Your task to perform on an android device: turn vacation reply on in the gmail app Image 0: 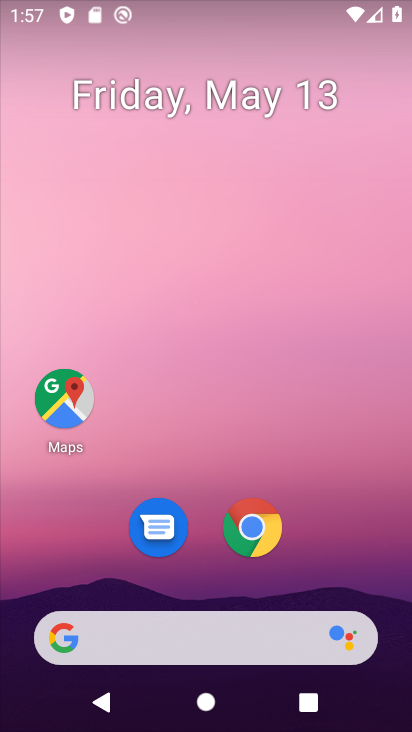
Step 0: drag from (354, 572) to (356, 256)
Your task to perform on an android device: turn vacation reply on in the gmail app Image 1: 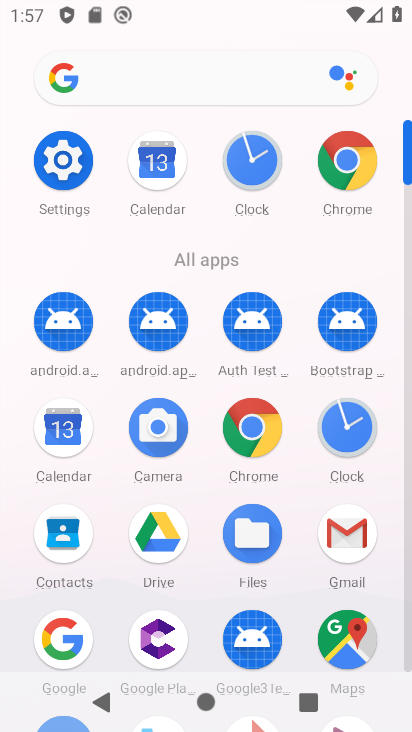
Step 1: click (359, 571)
Your task to perform on an android device: turn vacation reply on in the gmail app Image 2: 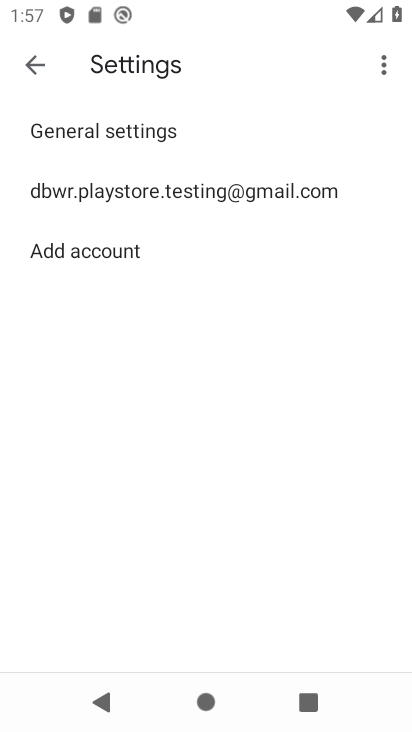
Step 2: click (177, 198)
Your task to perform on an android device: turn vacation reply on in the gmail app Image 3: 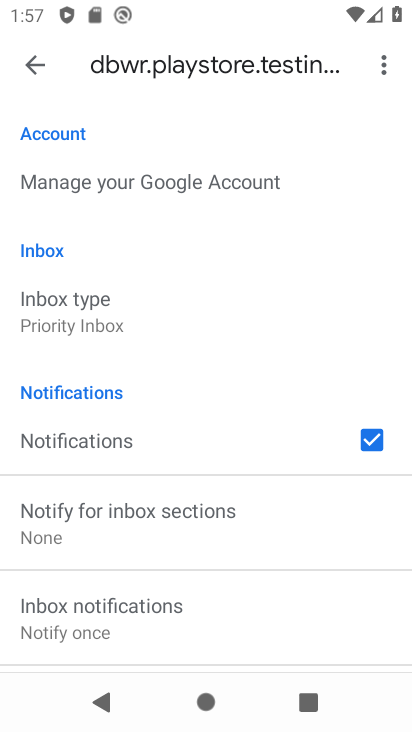
Step 3: drag from (300, 556) to (275, 188)
Your task to perform on an android device: turn vacation reply on in the gmail app Image 4: 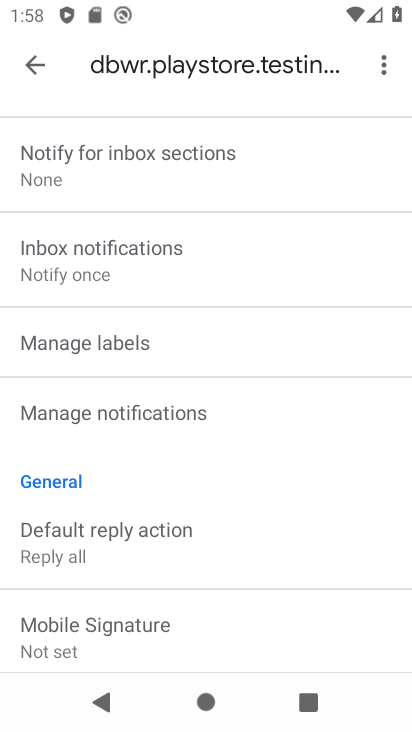
Step 4: drag from (275, 549) to (297, 210)
Your task to perform on an android device: turn vacation reply on in the gmail app Image 5: 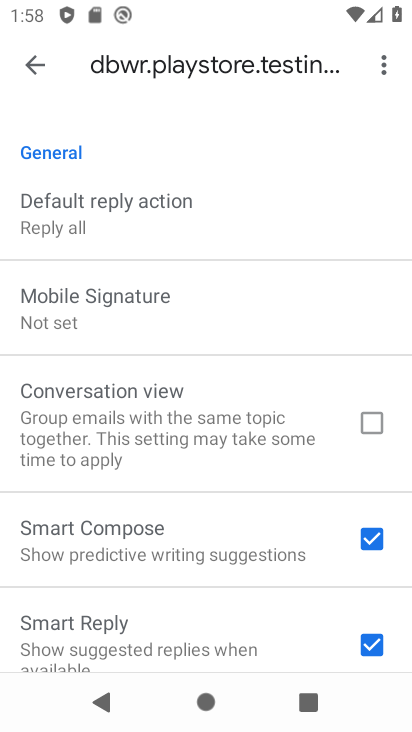
Step 5: drag from (275, 569) to (280, 278)
Your task to perform on an android device: turn vacation reply on in the gmail app Image 6: 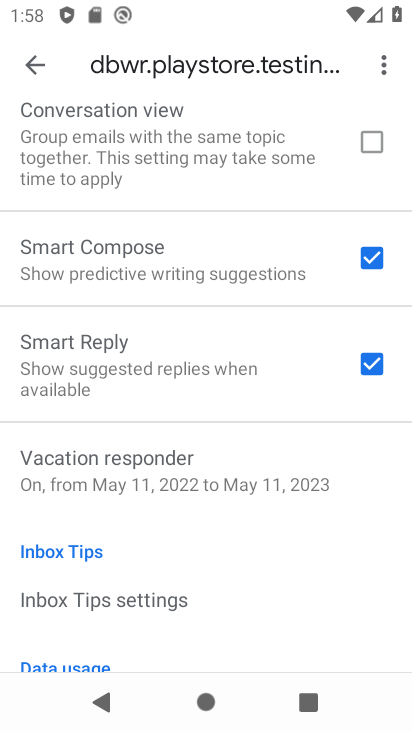
Step 6: click (175, 479)
Your task to perform on an android device: turn vacation reply on in the gmail app Image 7: 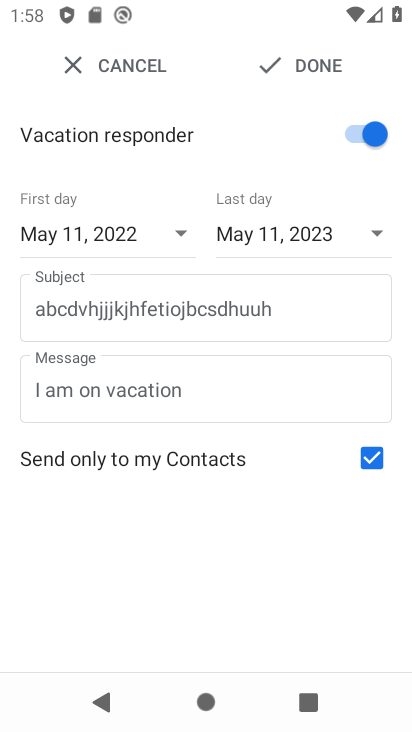
Step 7: task complete